Your task to perform on an android device: Open internet settings Image 0: 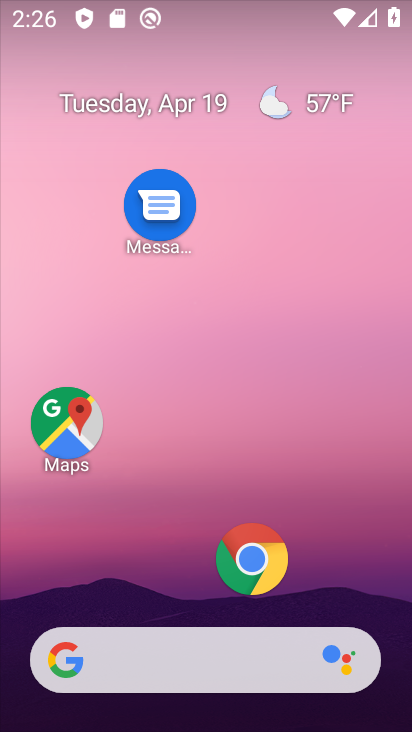
Step 0: drag from (183, 587) to (170, 210)
Your task to perform on an android device: Open internet settings Image 1: 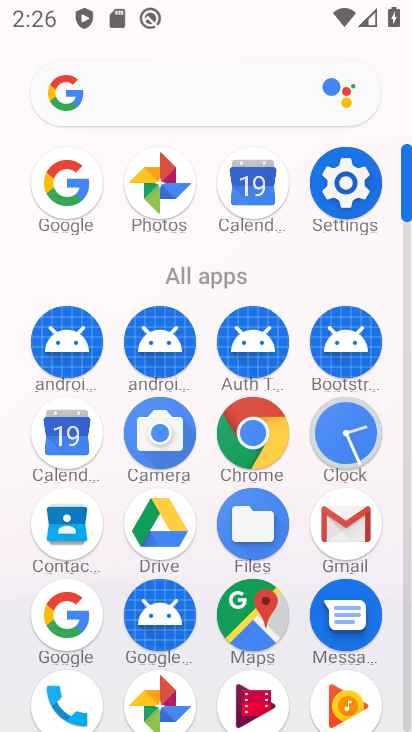
Step 1: click (331, 180)
Your task to perform on an android device: Open internet settings Image 2: 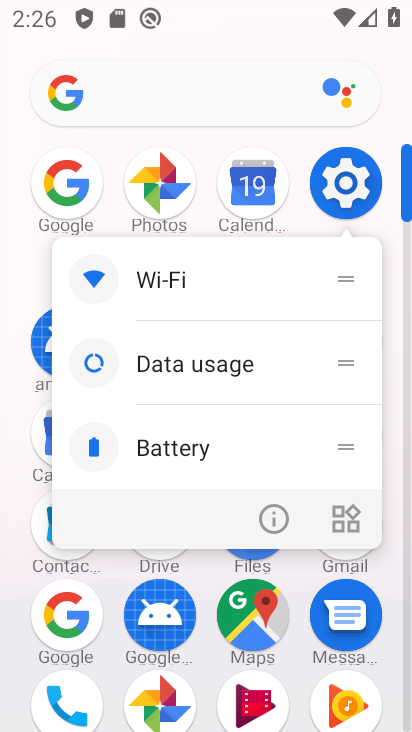
Step 2: click (333, 180)
Your task to perform on an android device: Open internet settings Image 3: 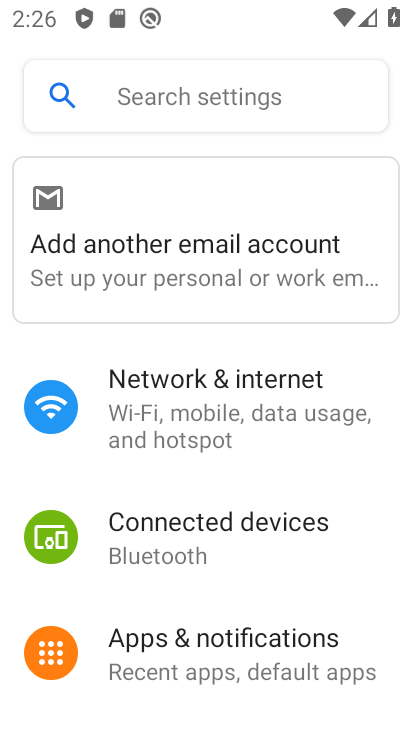
Step 3: click (174, 376)
Your task to perform on an android device: Open internet settings Image 4: 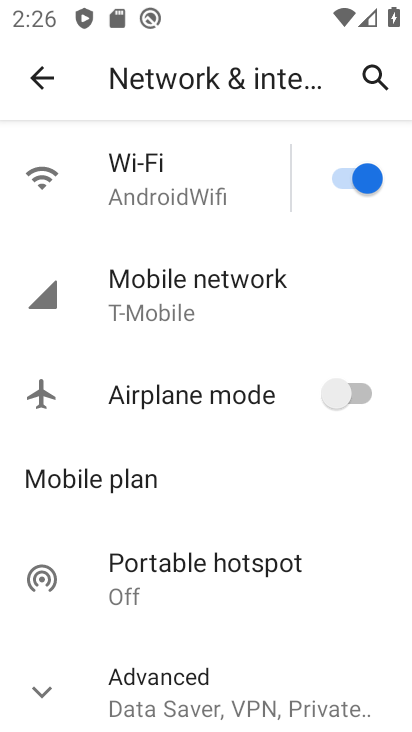
Step 4: task complete